Your task to perform on an android device: delete browsing data in the chrome app Image 0: 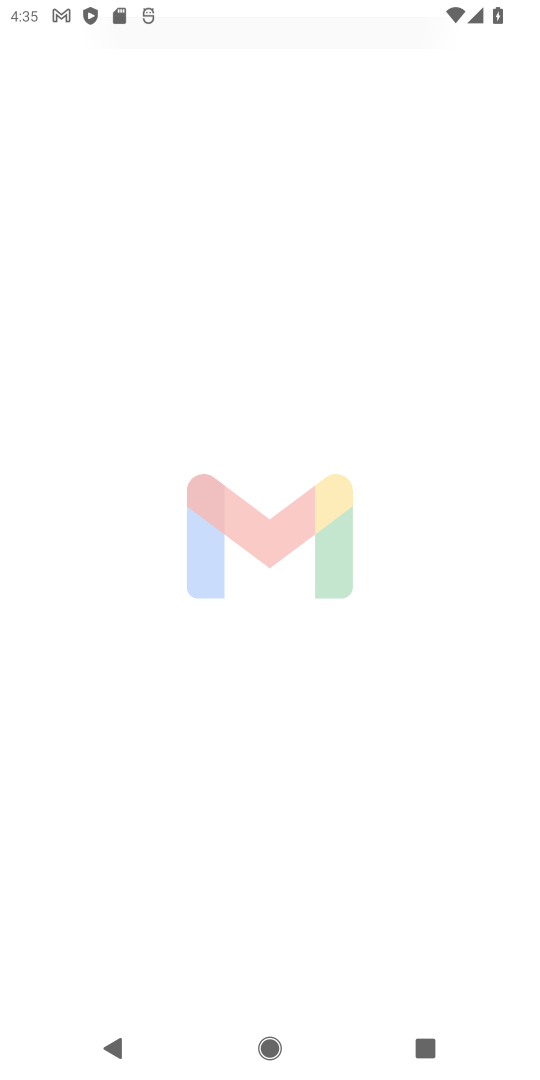
Step 0: press home button
Your task to perform on an android device: delete browsing data in the chrome app Image 1: 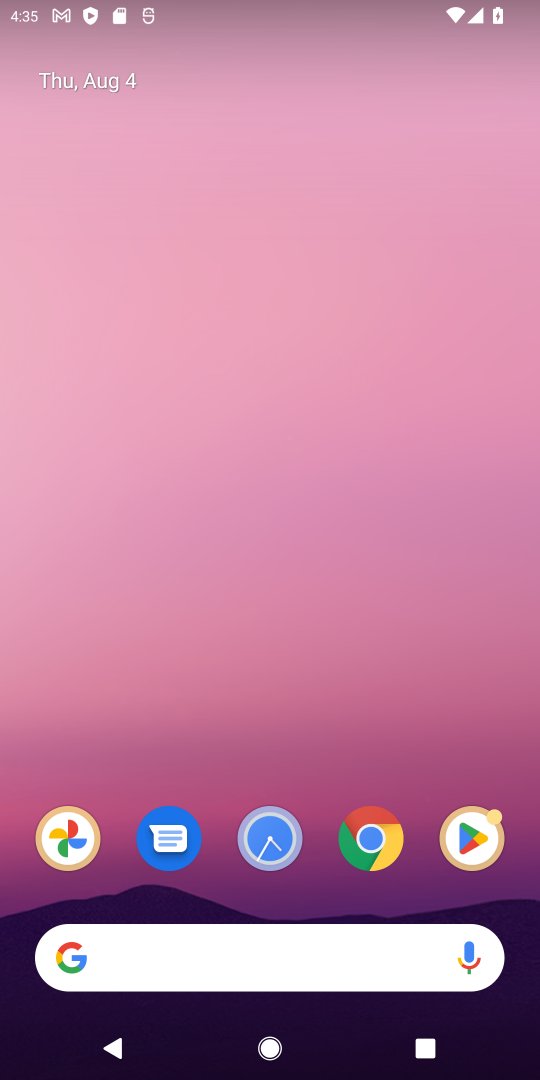
Step 1: drag from (128, 901) to (154, 209)
Your task to perform on an android device: delete browsing data in the chrome app Image 2: 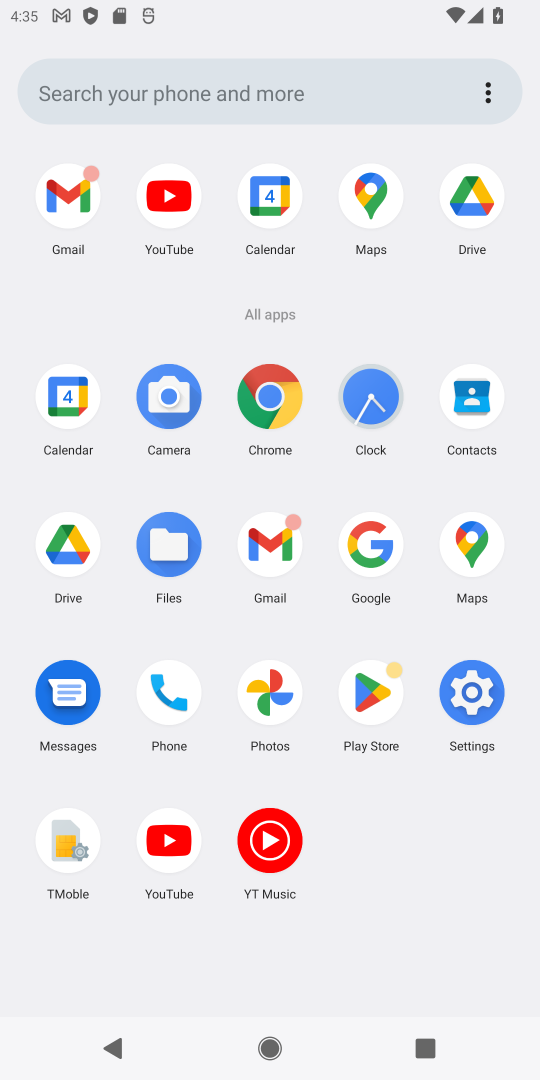
Step 2: click (273, 402)
Your task to perform on an android device: delete browsing data in the chrome app Image 3: 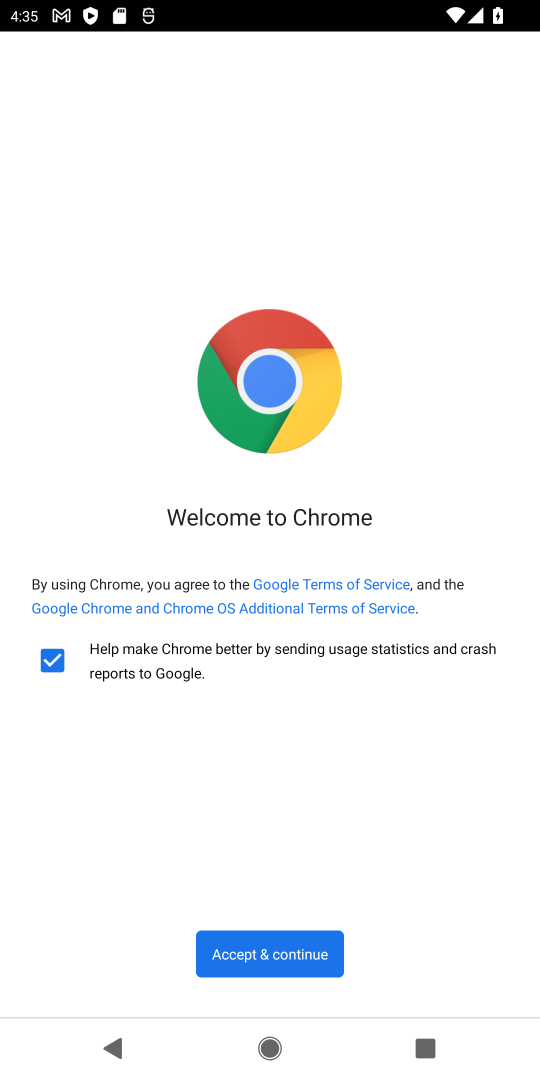
Step 3: click (203, 941)
Your task to perform on an android device: delete browsing data in the chrome app Image 4: 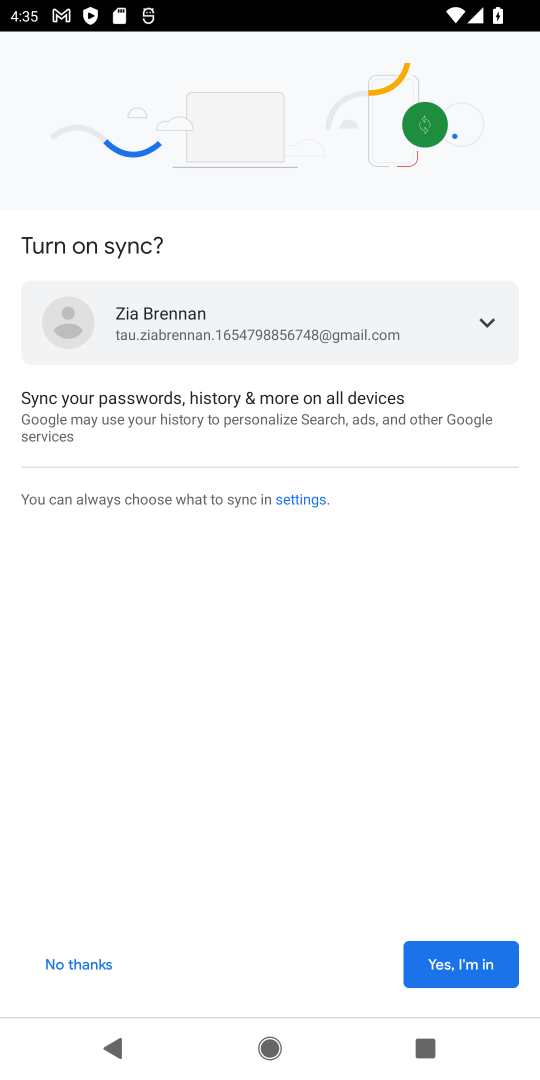
Step 4: click (72, 967)
Your task to perform on an android device: delete browsing data in the chrome app Image 5: 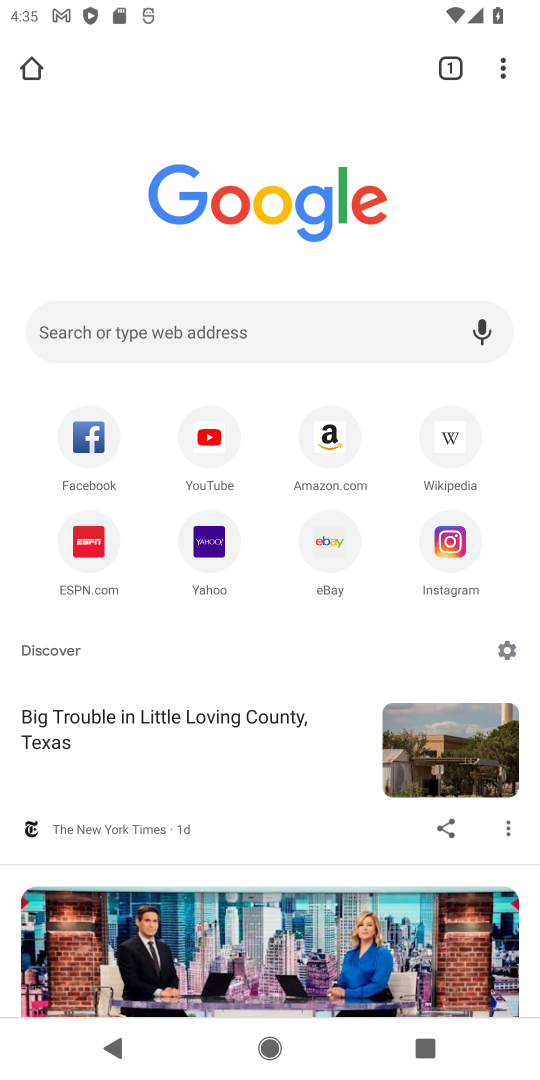
Step 5: drag from (485, 67) to (324, 275)
Your task to perform on an android device: delete browsing data in the chrome app Image 6: 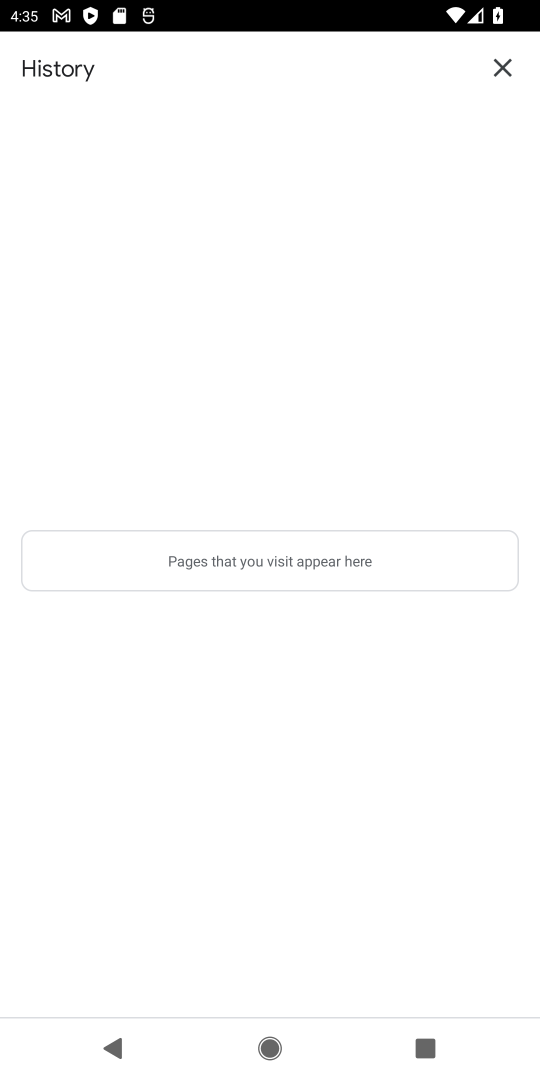
Step 6: click (186, 542)
Your task to perform on an android device: delete browsing data in the chrome app Image 7: 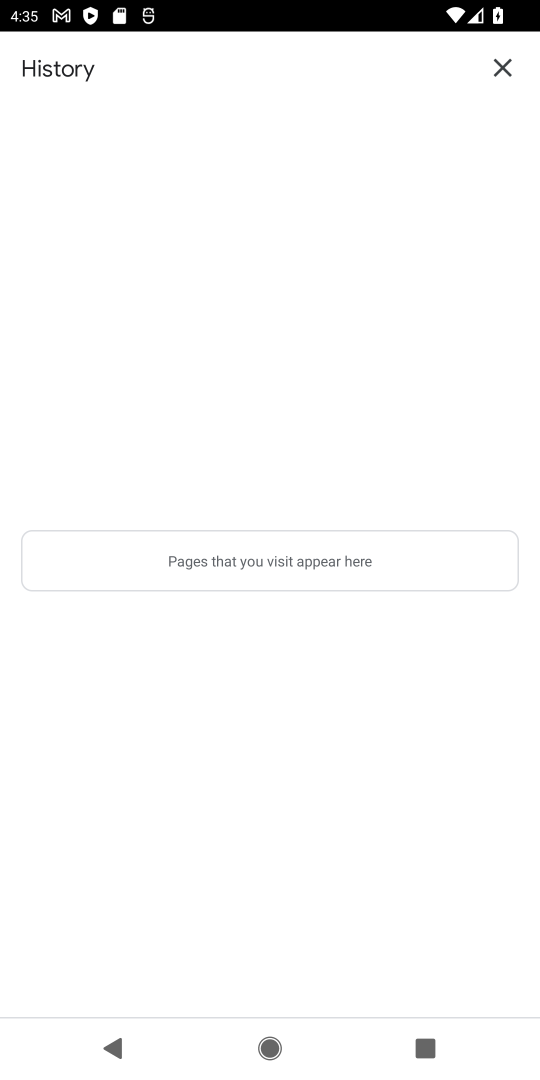
Step 7: click (188, 548)
Your task to perform on an android device: delete browsing data in the chrome app Image 8: 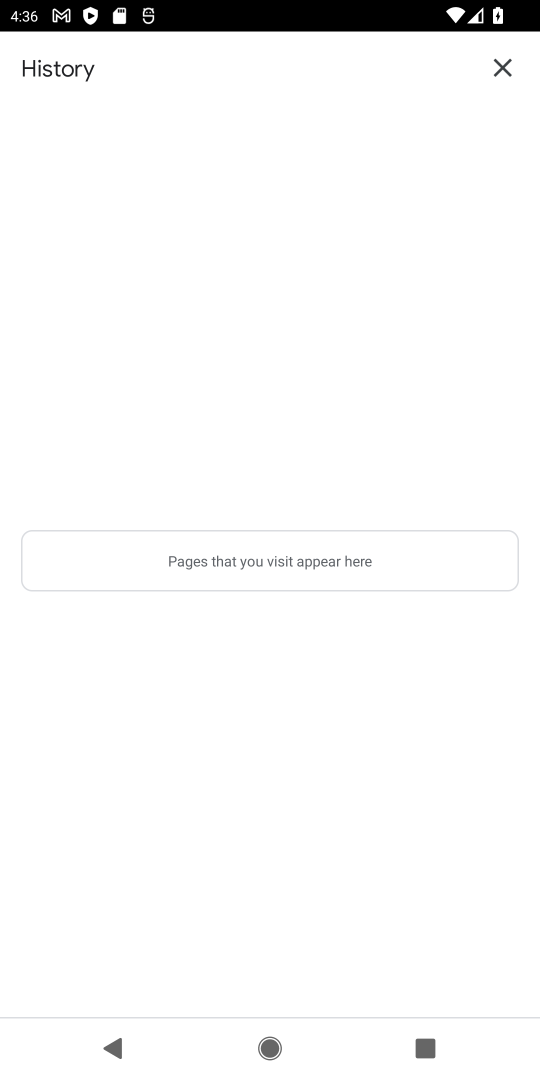
Step 8: task complete